Your task to perform on an android device: Open the web browser Image 0: 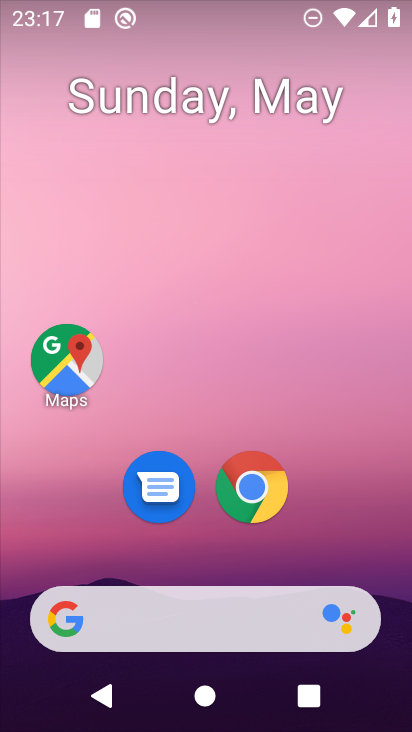
Step 0: click (253, 500)
Your task to perform on an android device: Open the web browser Image 1: 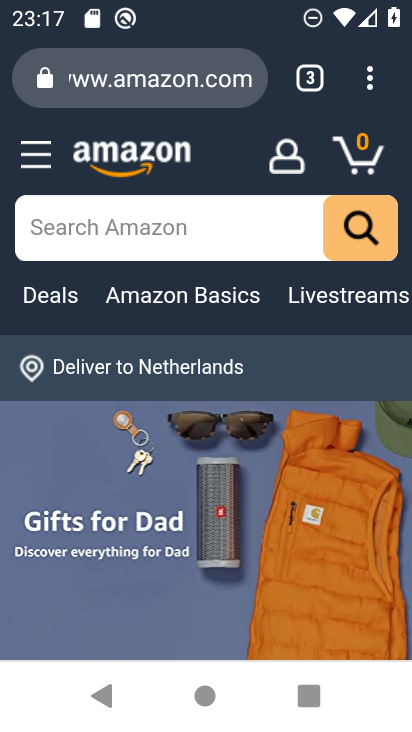
Step 1: task complete